Your task to perform on an android device: Go to ESPN.com Image 0: 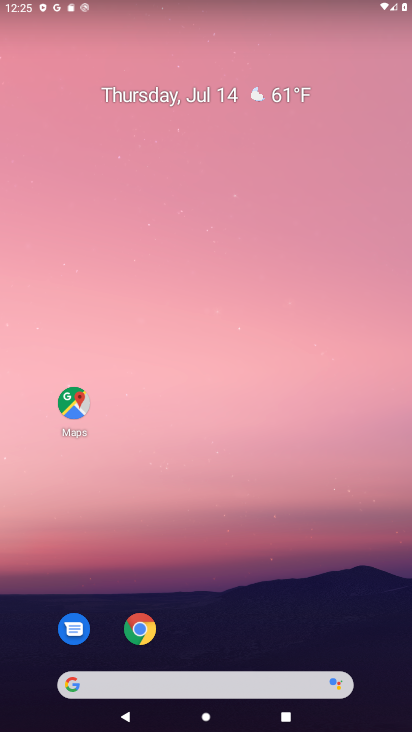
Step 0: click (191, 682)
Your task to perform on an android device: Go to ESPN.com Image 1: 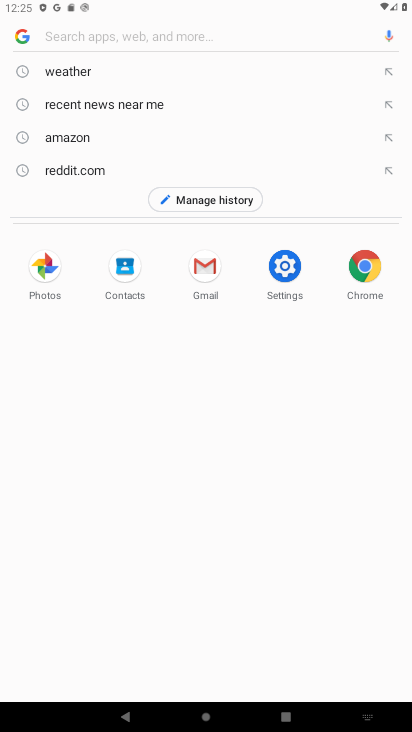
Step 1: click (354, 274)
Your task to perform on an android device: Go to ESPN.com Image 2: 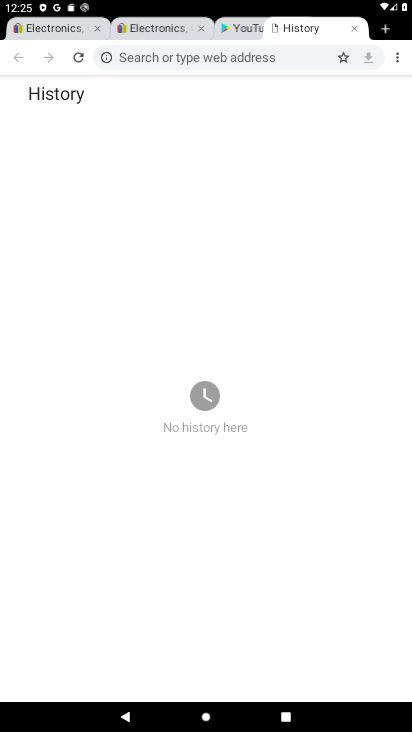
Step 2: click (384, 26)
Your task to perform on an android device: Go to ESPN.com Image 3: 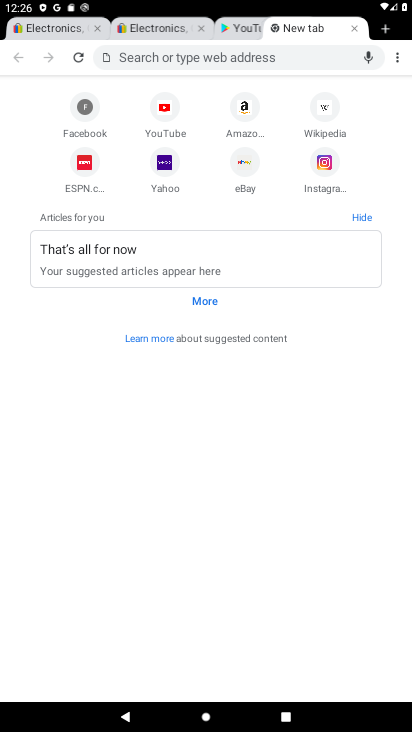
Step 3: click (90, 159)
Your task to perform on an android device: Go to ESPN.com Image 4: 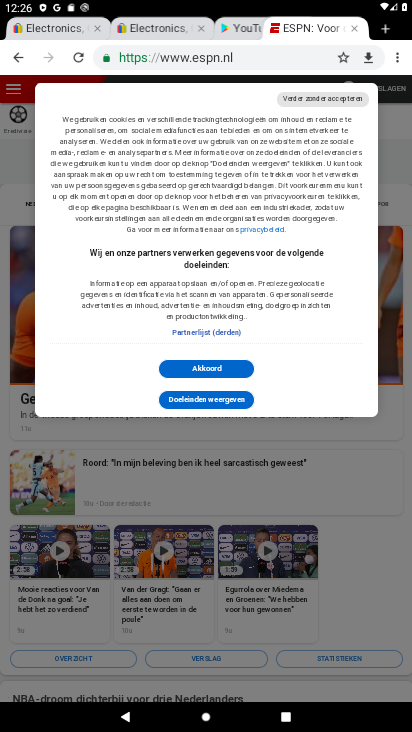
Step 4: task complete